Your task to perform on an android device: Open the Play Movies app and select the watchlist tab. Image 0: 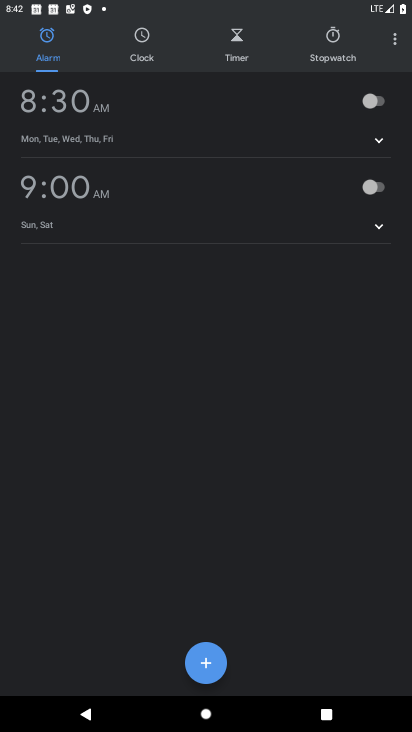
Step 0: press back button
Your task to perform on an android device: Open the Play Movies app and select the watchlist tab. Image 1: 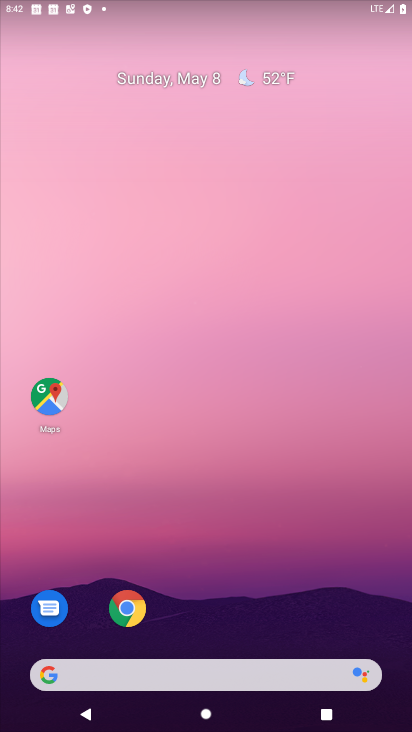
Step 1: drag from (284, 583) to (284, 21)
Your task to perform on an android device: Open the Play Movies app and select the watchlist tab. Image 2: 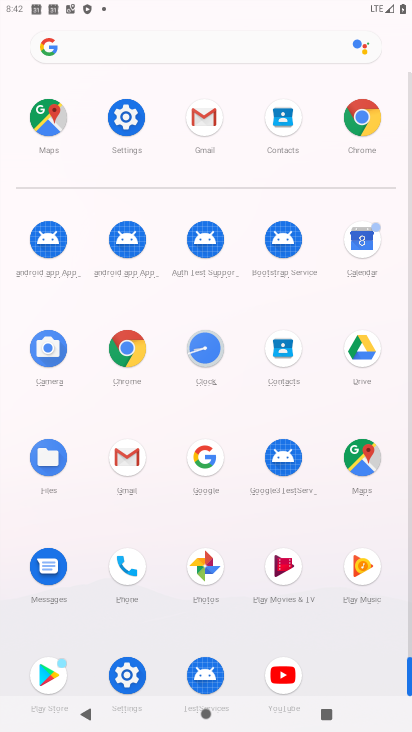
Step 2: click (282, 562)
Your task to perform on an android device: Open the Play Movies app and select the watchlist tab. Image 3: 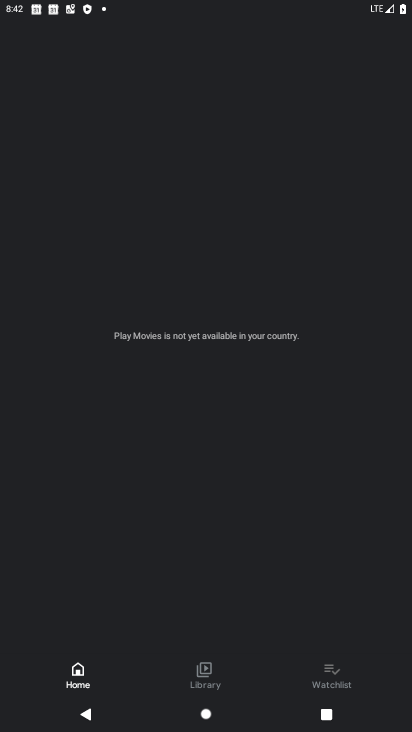
Step 3: click (329, 682)
Your task to perform on an android device: Open the Play Movies app and select the watchlist tab. Image 4: 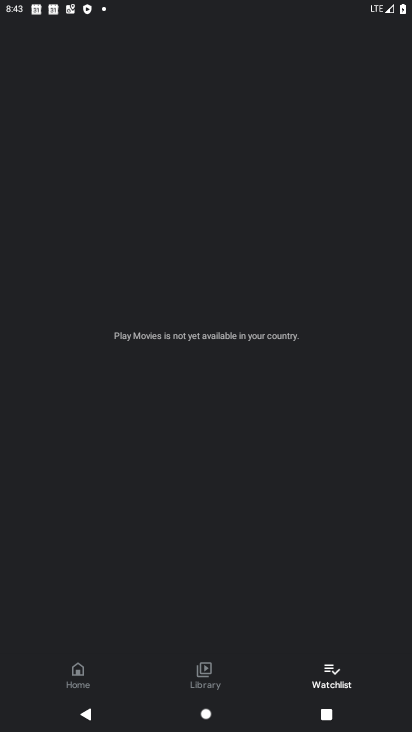
Step 4: task complete